Your task to perform on an android device: What is the news today? Image 0: 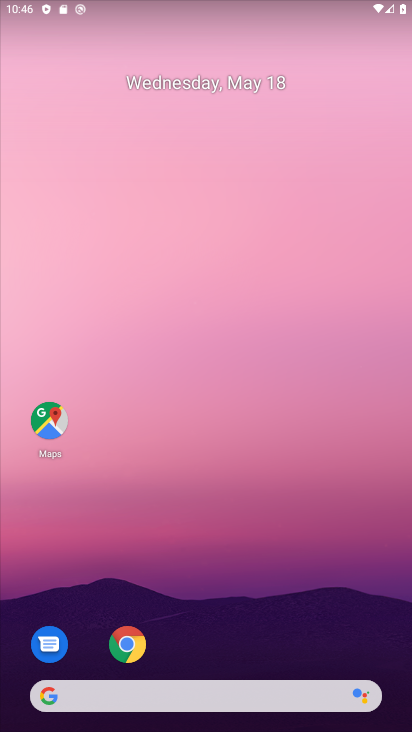
Step 0: drag from (320, 635) to (279, 121)
Your task to perform on an android device: What is the news today? Image 1: 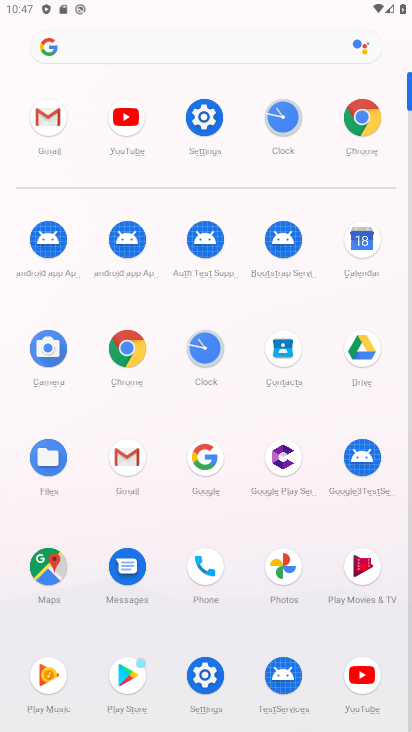
Step 1: click (195, 455)
Your task to perform on an android device: What is the news today? Image 2: 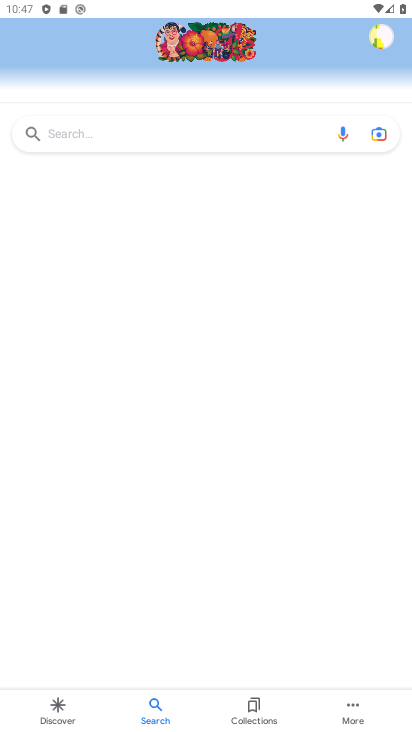
Step 2: click (147, 144)
Your task to perform on an android device: What is the news today? Image 3: 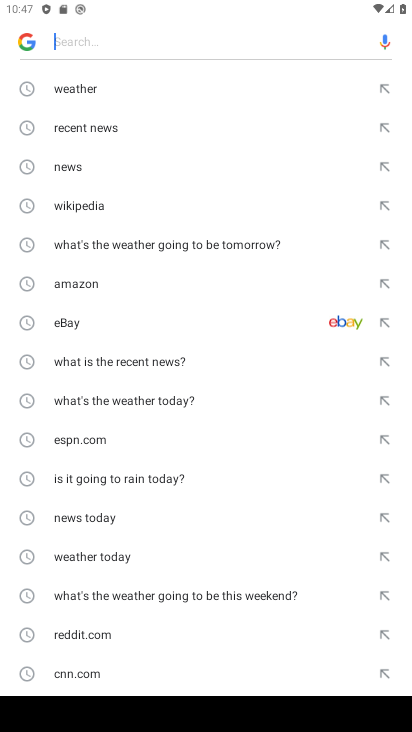
Step 3: drag from (127, 573) to (160, 269)
Your task to perform on an android device: What is the news today? Image 4: 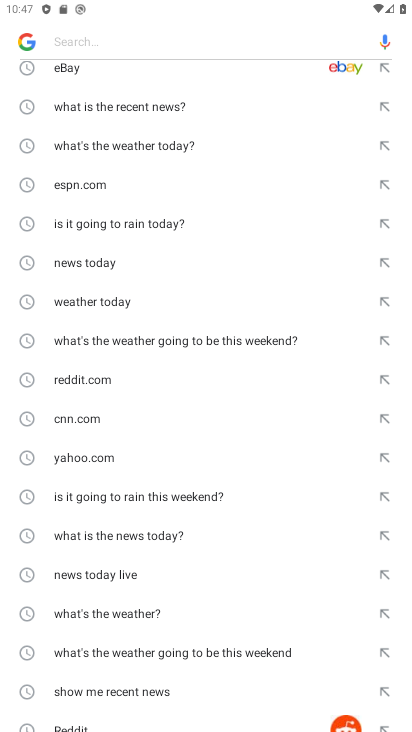
Step 4: drag from (124, 631) to (173, 363)
Your task to perform on an android device: What is the news today? Image 5: 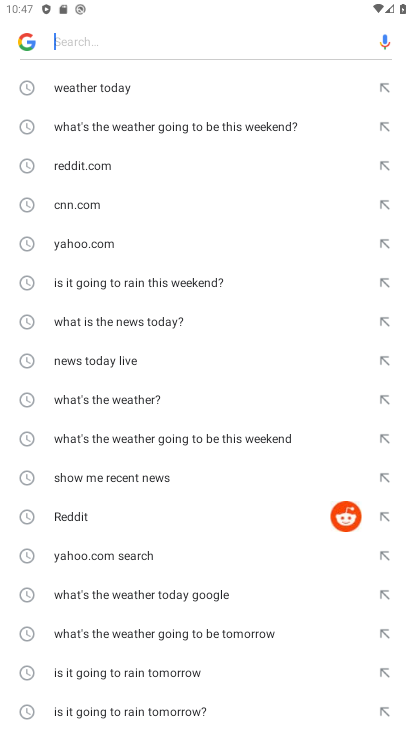
Step 5: drag from (169, 665) to (158, 320)
Your task to perform on an android device: What is the news today? Image 6: 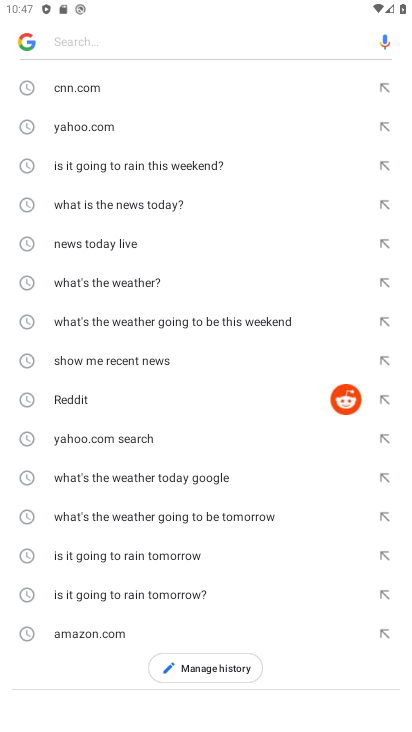
Step 6: drag from (184, 234) to (185, 396)
Your task to perform on an android device: What is the news today? Image 7: 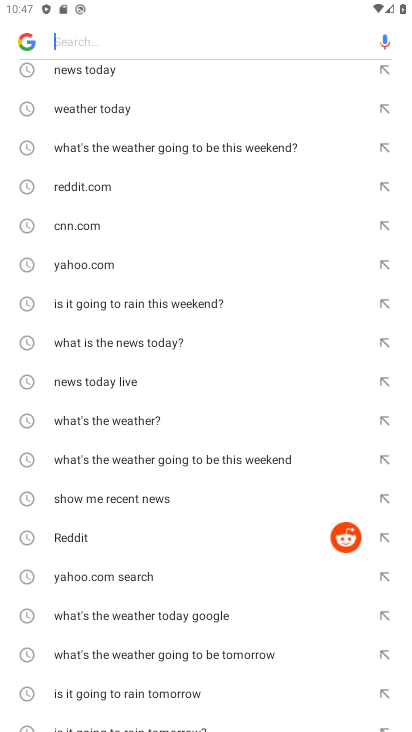
Step 7: click (167, 351)
Your task to perform on an android device: What is the news today? Image 8: 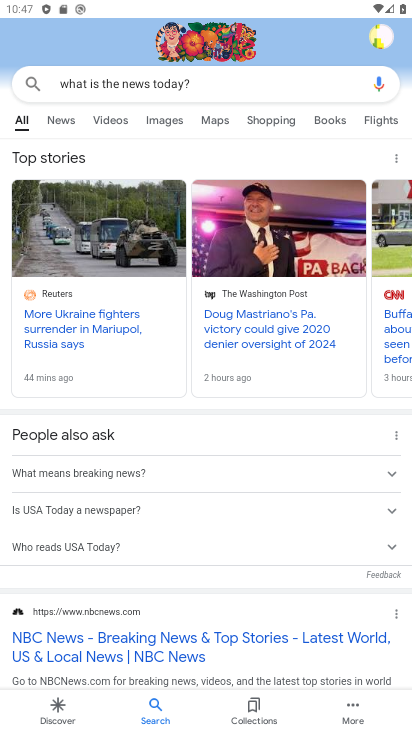
Step 8: task complete